Your task to perform on an android device: Show the shopping cart on amazon. Add "logitech g pro" to the cart on amazon Image 0: 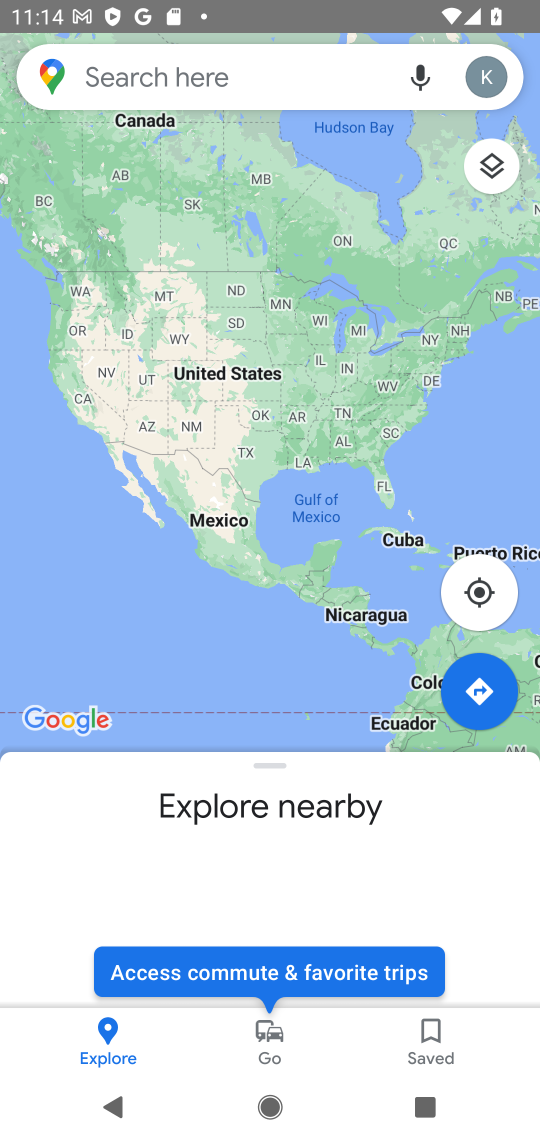
Step 0: press home button
Your task to perform on an android device: Show the shopping cart on amazon. Add "logitech g pro" to the cart on amazon Image 1: 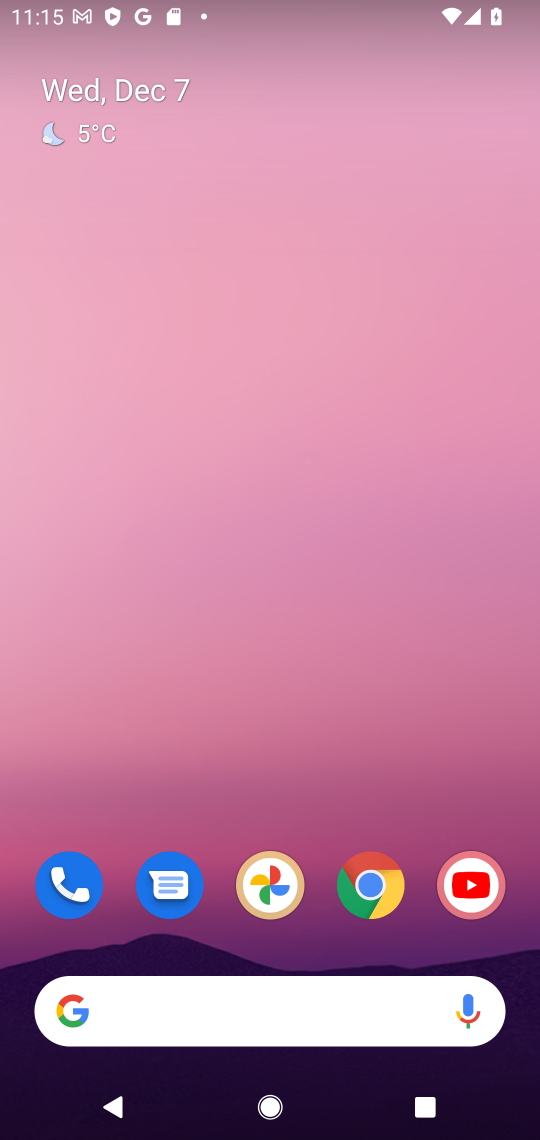
Step 1: click (366, 901)
Your task to perform on an android device: Show the shopping cart on amazon. Add "logitech g pro" to the cart on amazon Image 2: 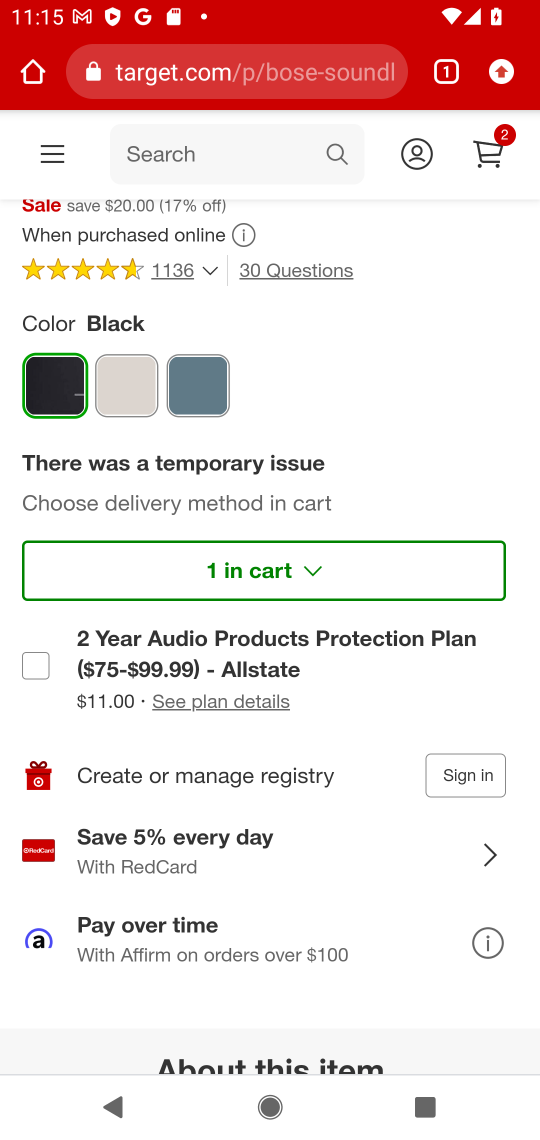
Step 2: click (263, 67)
Your task to perform on an android device: Show the shopping cart on amazon. Add "logitech g pro" to the cart on amazon Image 3: 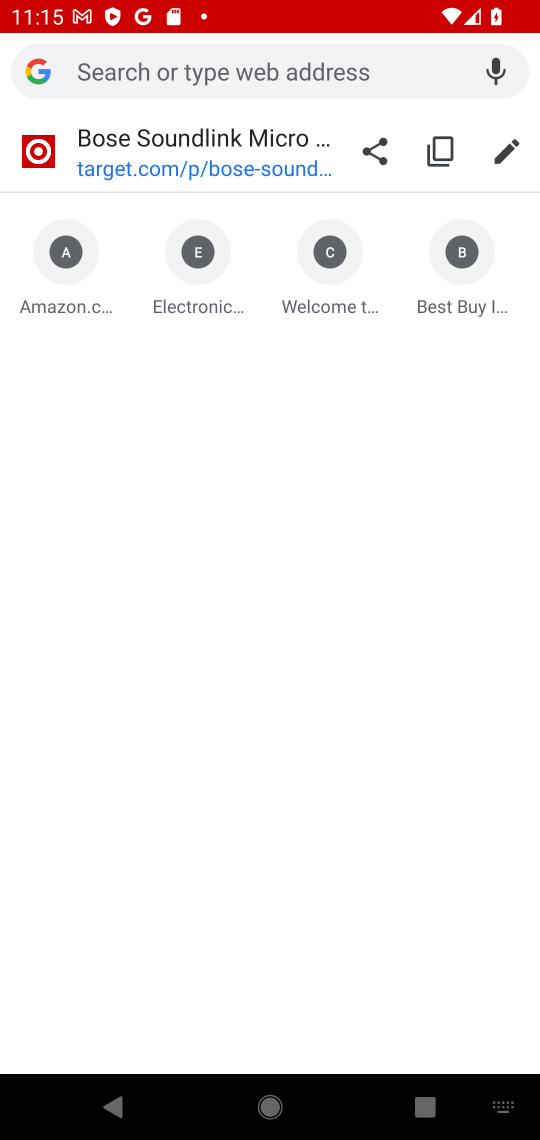
Step 3: click (68, 259)
Your task to perform on an android device: Show the shopping cart on amazon. Add "logitech g pro" to the cart on amazon Image 4: 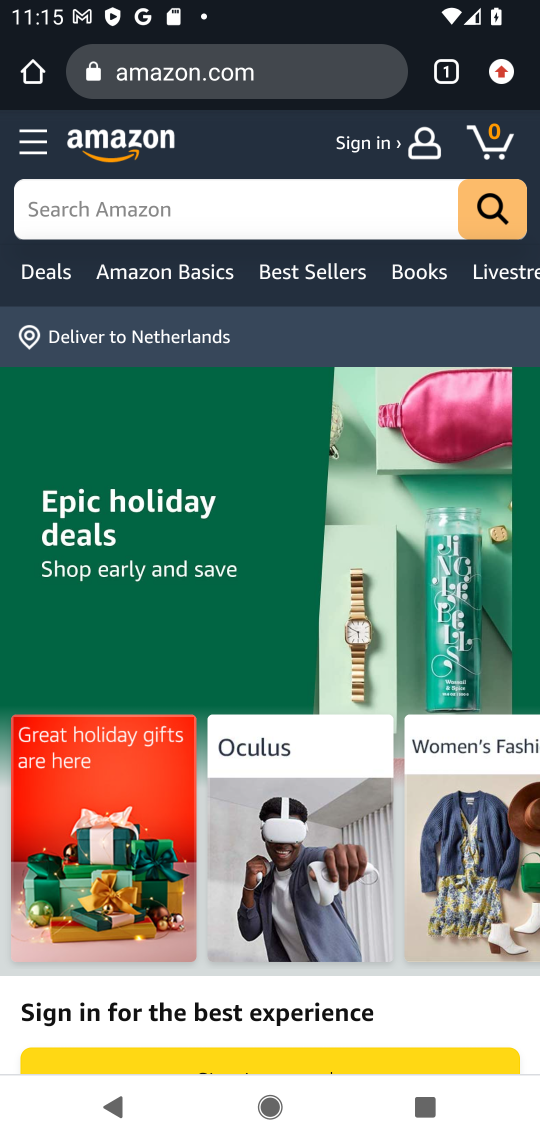
Step 4: click (286, 216)
Your task to perform on an android device: Show the shopping cart on amazon. Add "logitech g pro" to the cart on amazon Image 5: 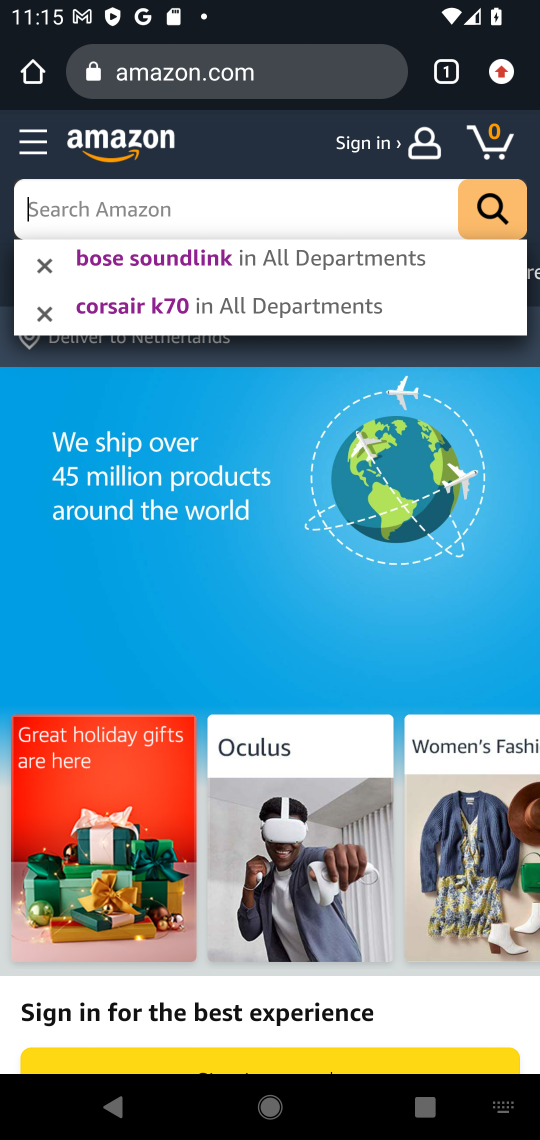
Step 5: type "LOGITECG G PRO"
Your task to perform on an android device: Show the shopping cart on amazon. Add "logitech g pro" to the cart on amazon Image 6: 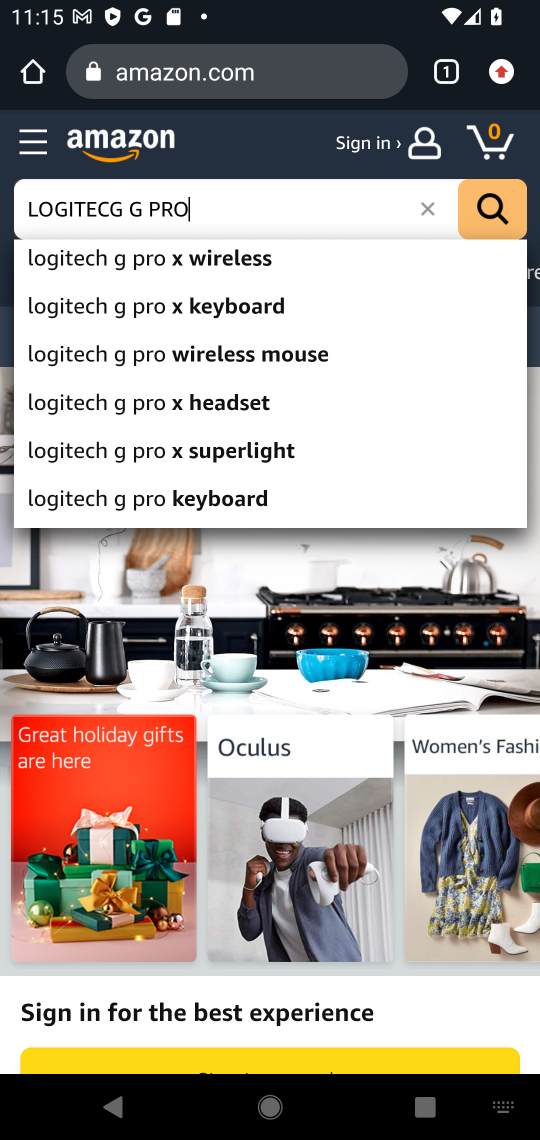
Step 6: click (157, 265)
Your task to perform on an android device: Show the shopping cart on amazon. Add "logitech g pro" to the cart on amazon Image 7: 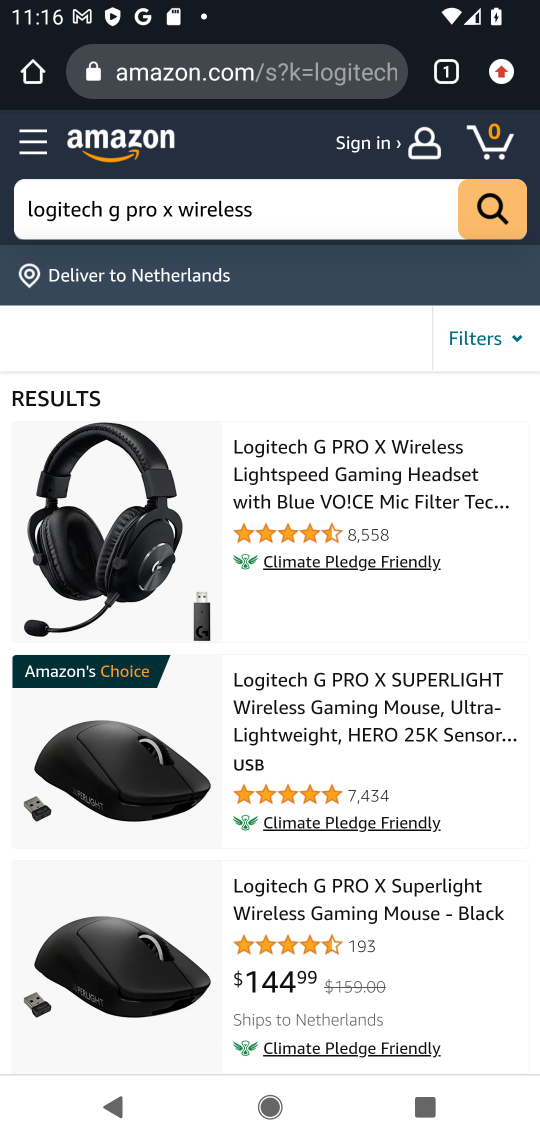
Step 7: click (179, 510)
Your task to perform on an android device: Show the shopping cart on amazon. Add "logitech g pro" to the cart on amazon Image 8: 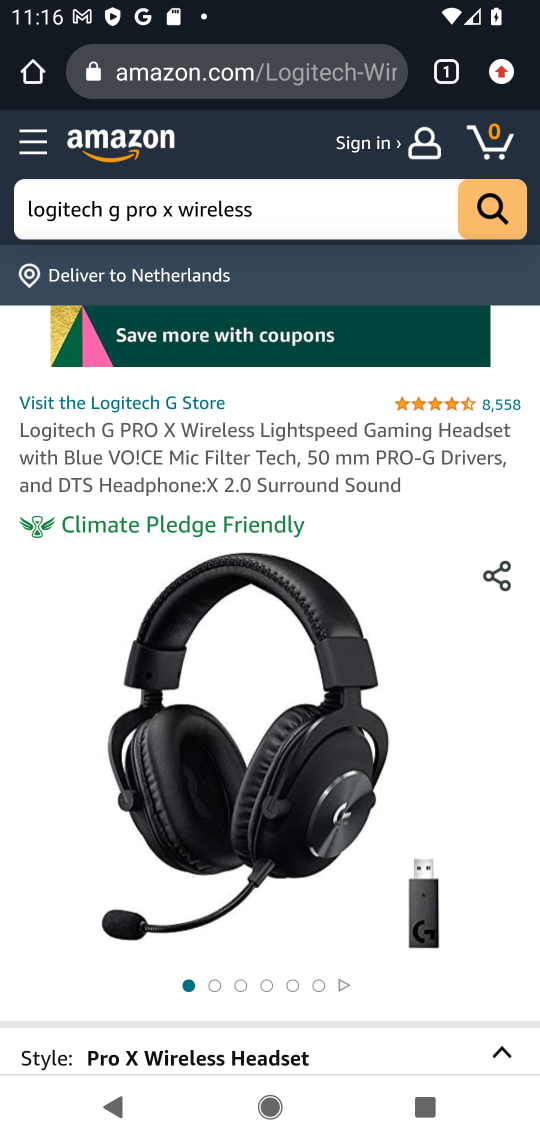
Step 8: task complete